Your task to perform on an android device: turn on location history Image 0: 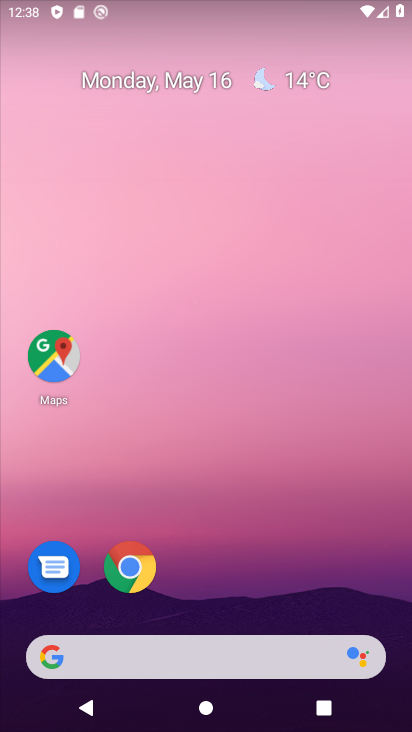
Step 0: drag from (246, 562) to (102, 51)
Your task to perform on an android device: turn on location history Image 1: 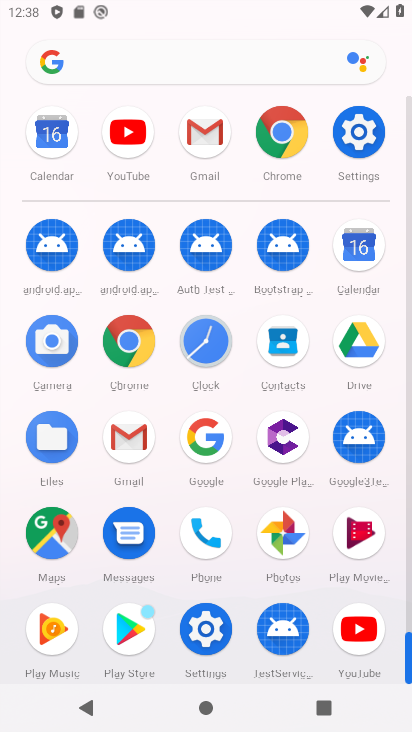
Step 1: click (67, 536)
Your task to perform on an android device: turn on location history Image 2: 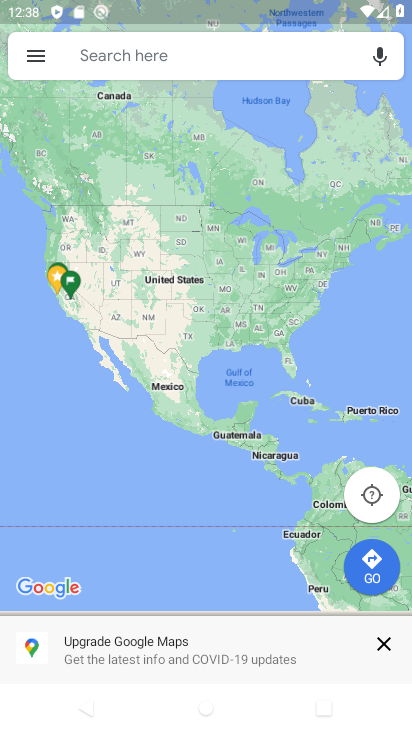
Step 2: click (29, 60)
Your task to perform on an android device: turn on location history Image 3: 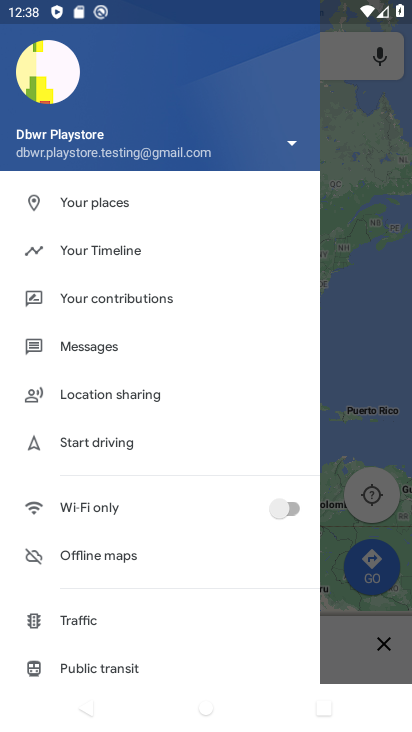
Step 3: click (94, 248)
Your task to perform on an android device: turn on location history Image 4: 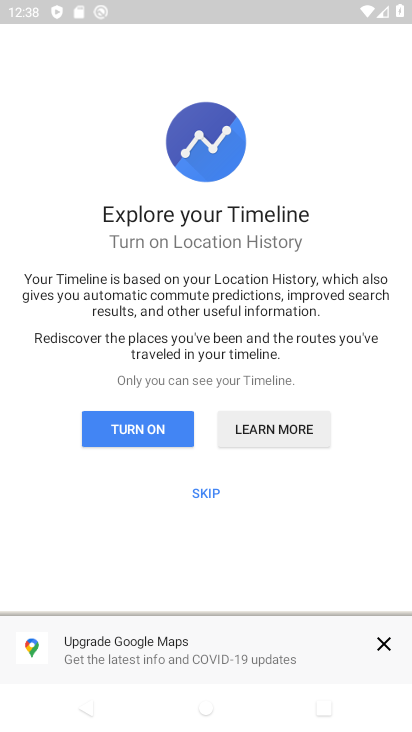
Step 4: click (152, 432)
Your task to perform on an android device: turn on location history Image 5: 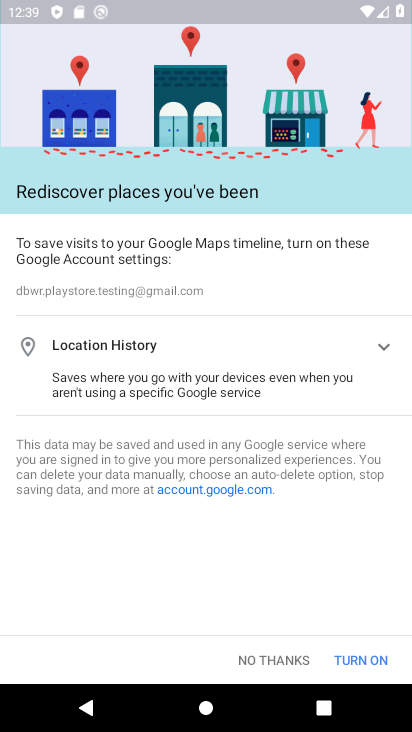
Step 5: click (359, 662)
Your task to perform on an android device: turn on location history Image 6: 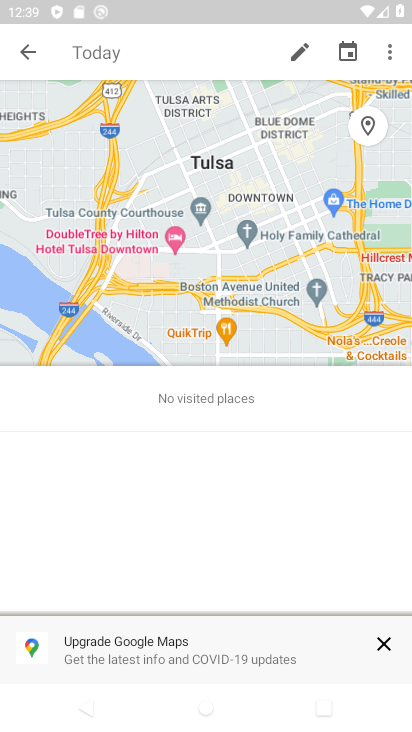
Step 6: task complete